Your task to perform on an android device: turn on notifications settings in the gmail app Image 0: 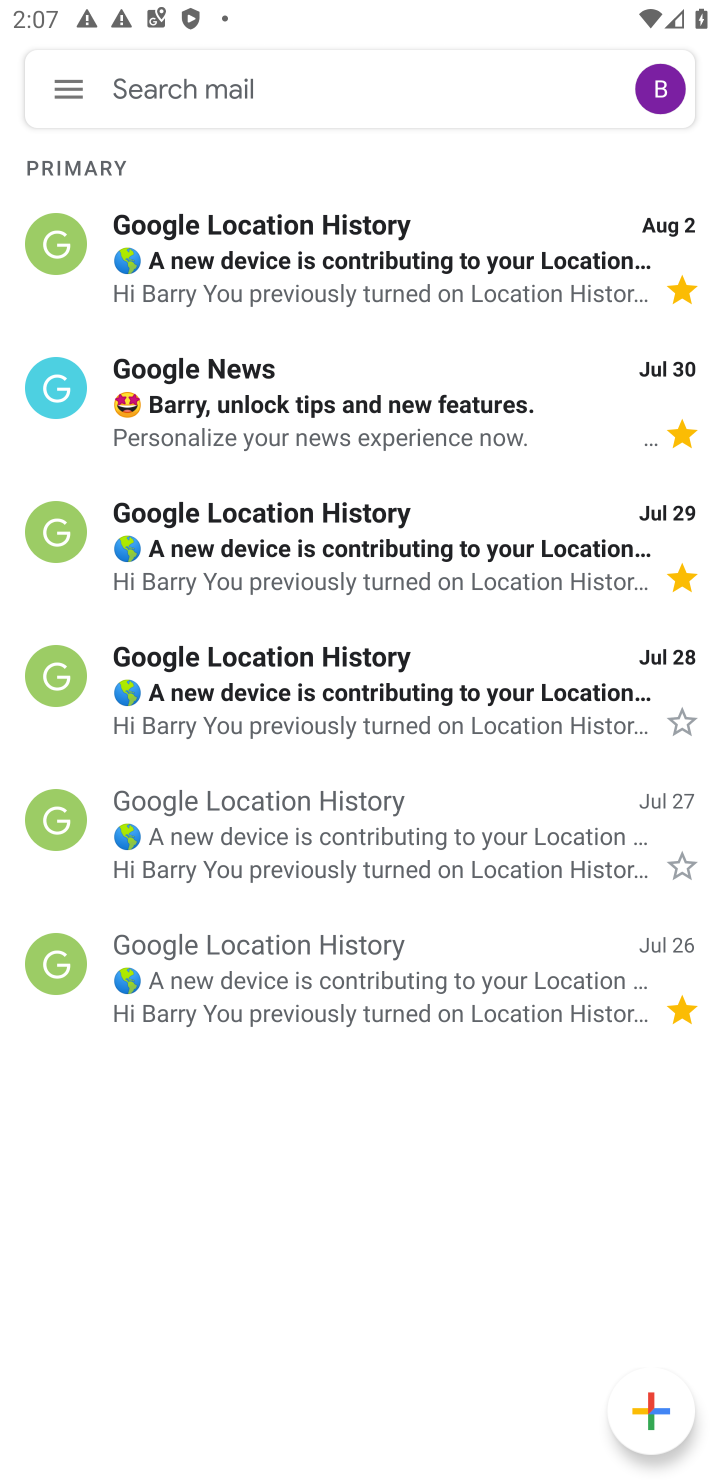
Step 0: press home button
Your task to perform on an android device: turn on notifications settings in the gmail app Image 1: 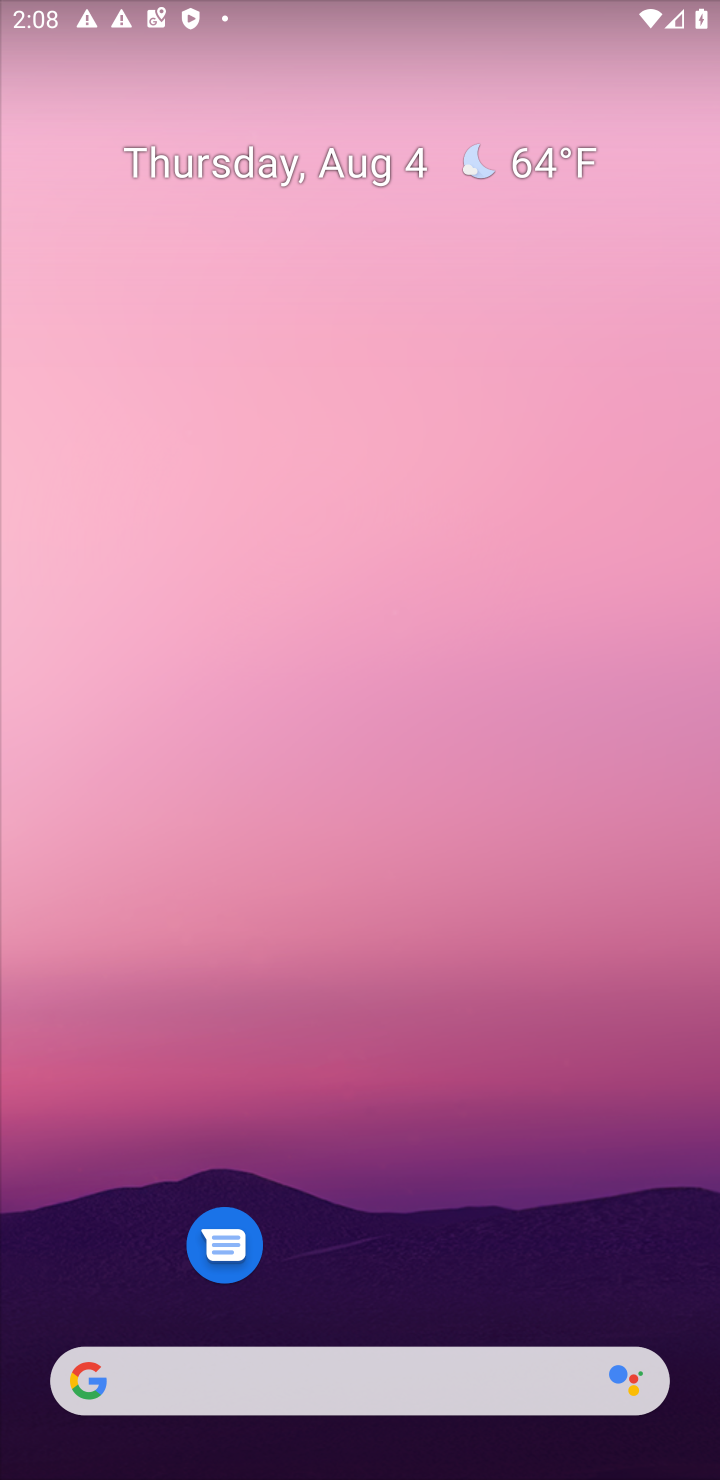
Step 1: drag from (302, 1288) to (270, 301)
Your task to perform on an android device: turn on notifications settings in the gmail app Image 2: 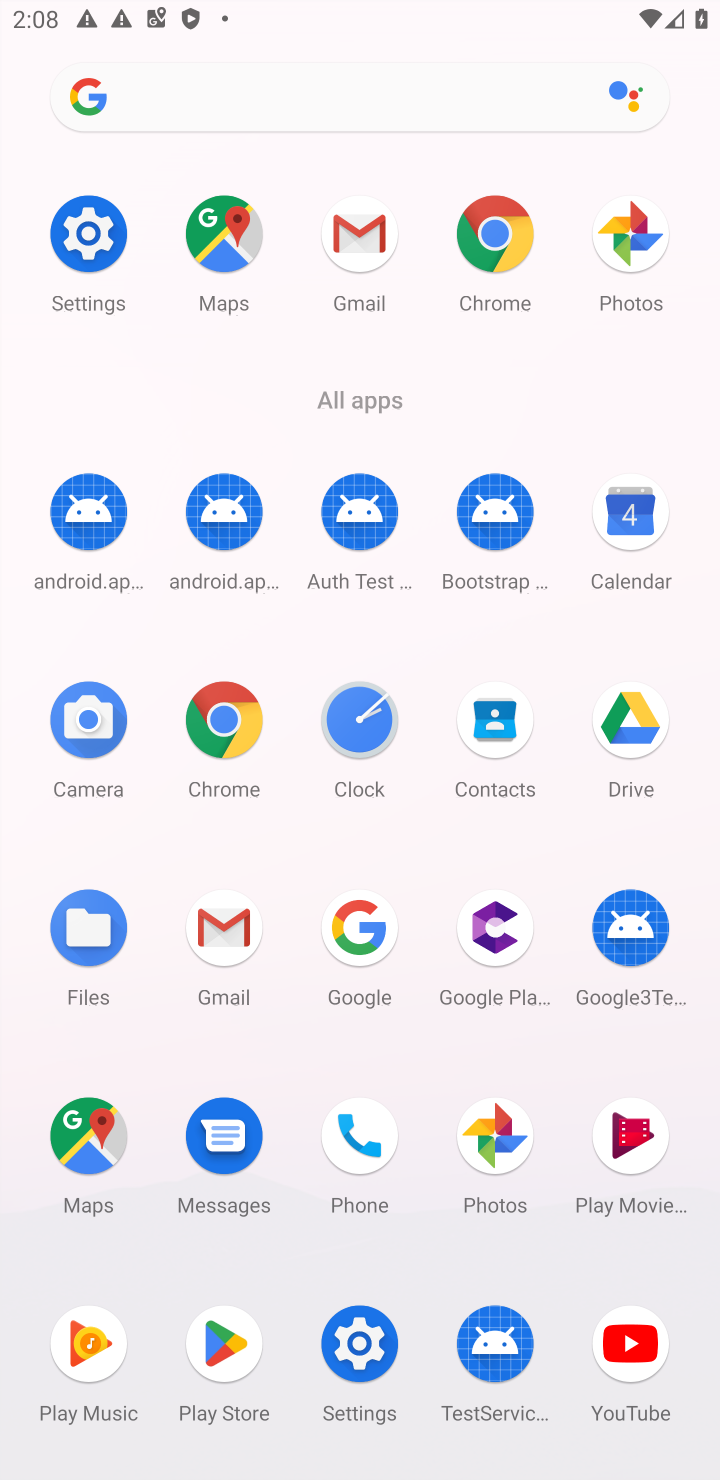
Step 2: click (369, 220)
Your task to perform on an android device: turn on notifications settings in the gmail app Image 3: 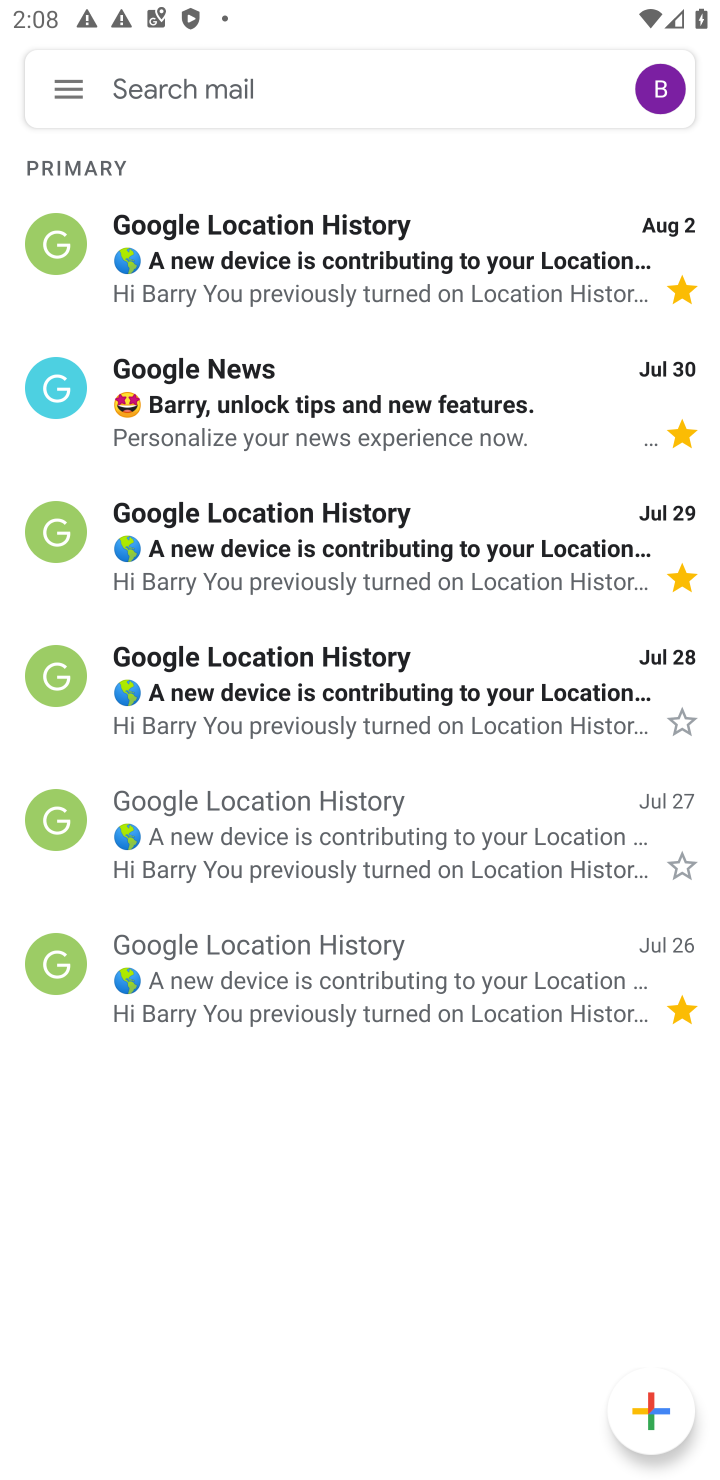
Step 3: click (85, 82)
Your task to perform on an android device: turn on notifications settings in the gmail app Image 4: 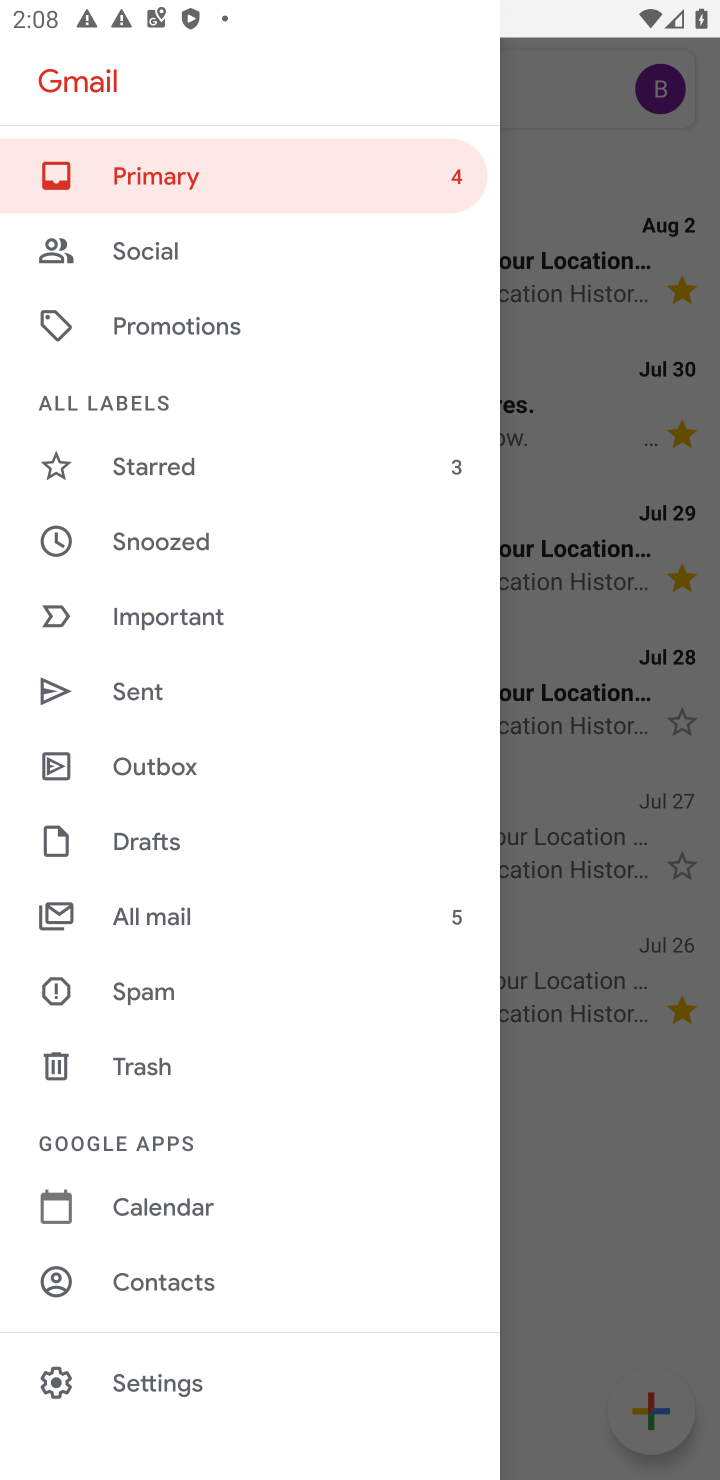
Step 4: click (128, 1377)
Your task to perform on an android device: turn on notifications settings in the gmail app Image 5: 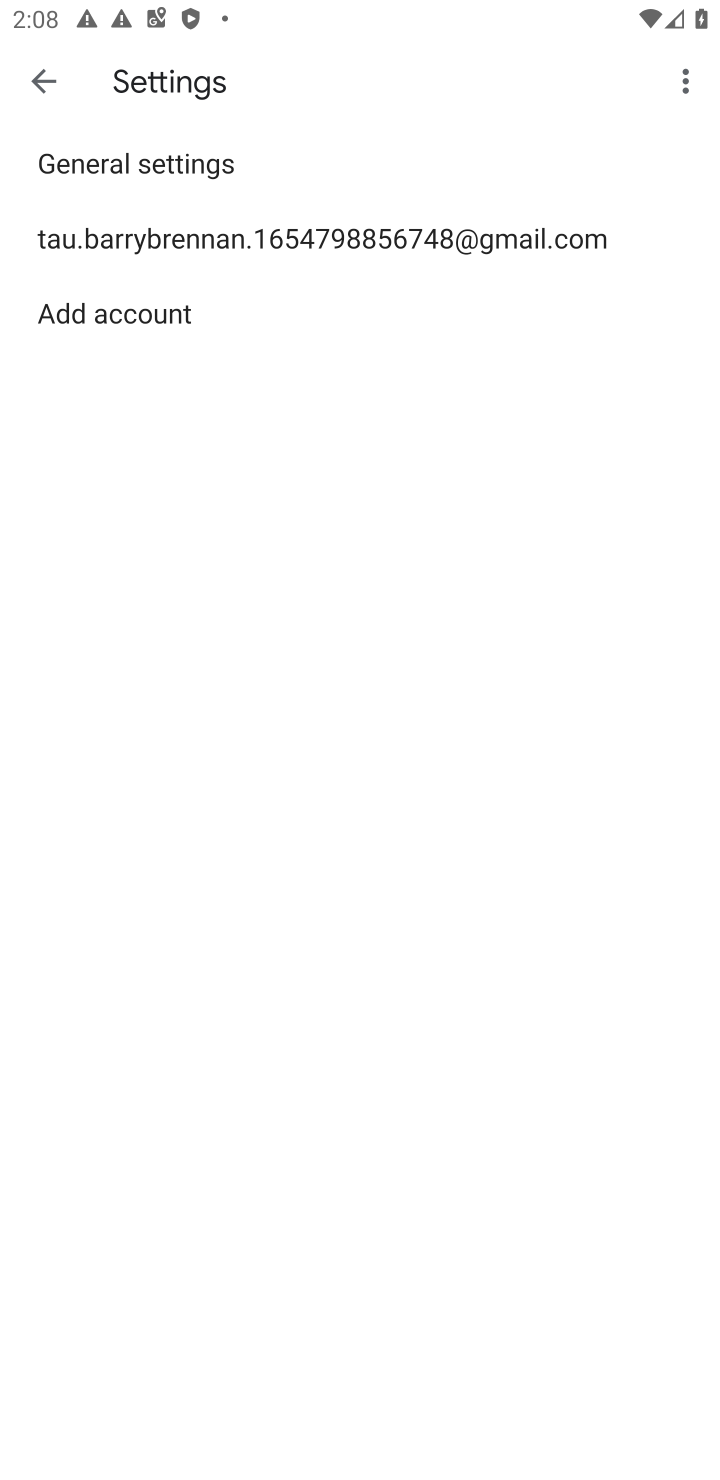
Step 5: click (226, 257)
Your task to perform on an android device: turn on notifications settings in the gmail app Image 6: 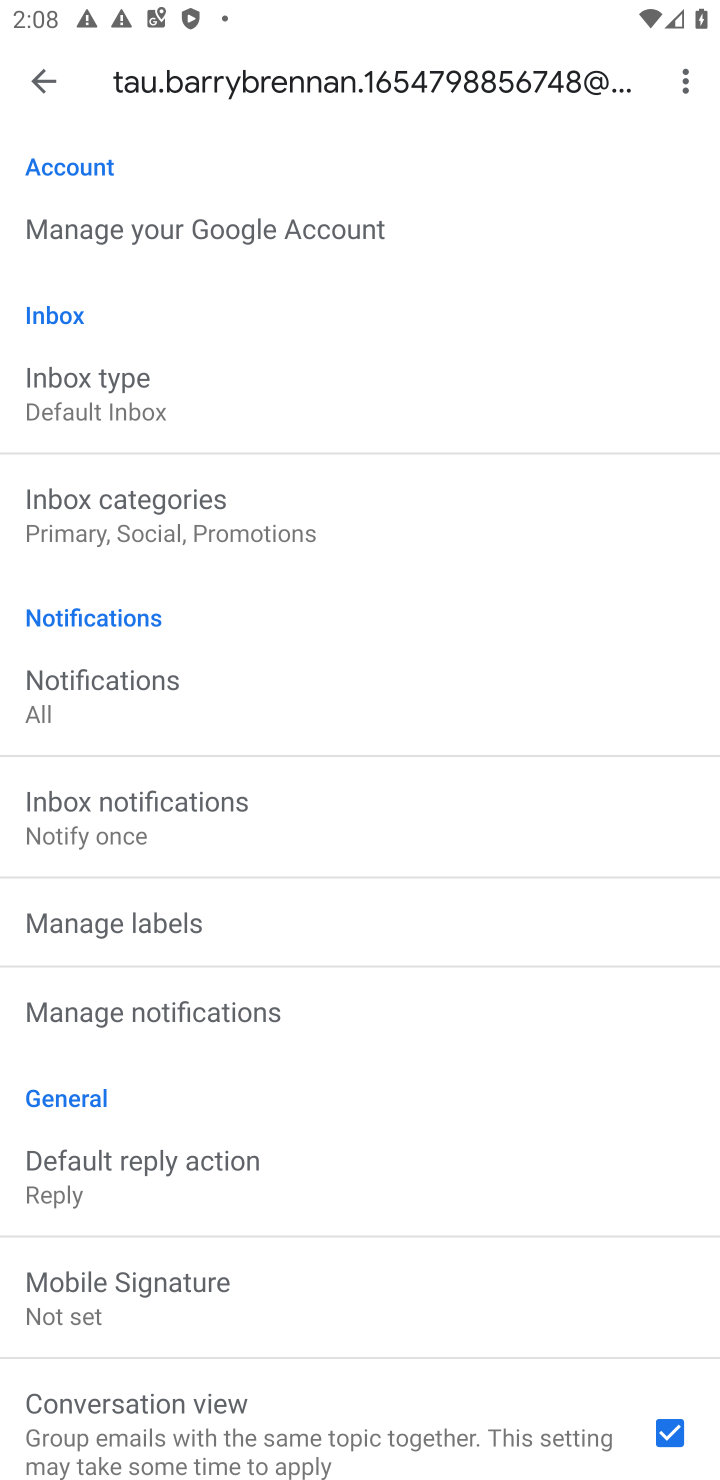
Step 6: click (263, 692)
Your task to perform on an android device: turn on notifications settings in the gmail app Image 7: 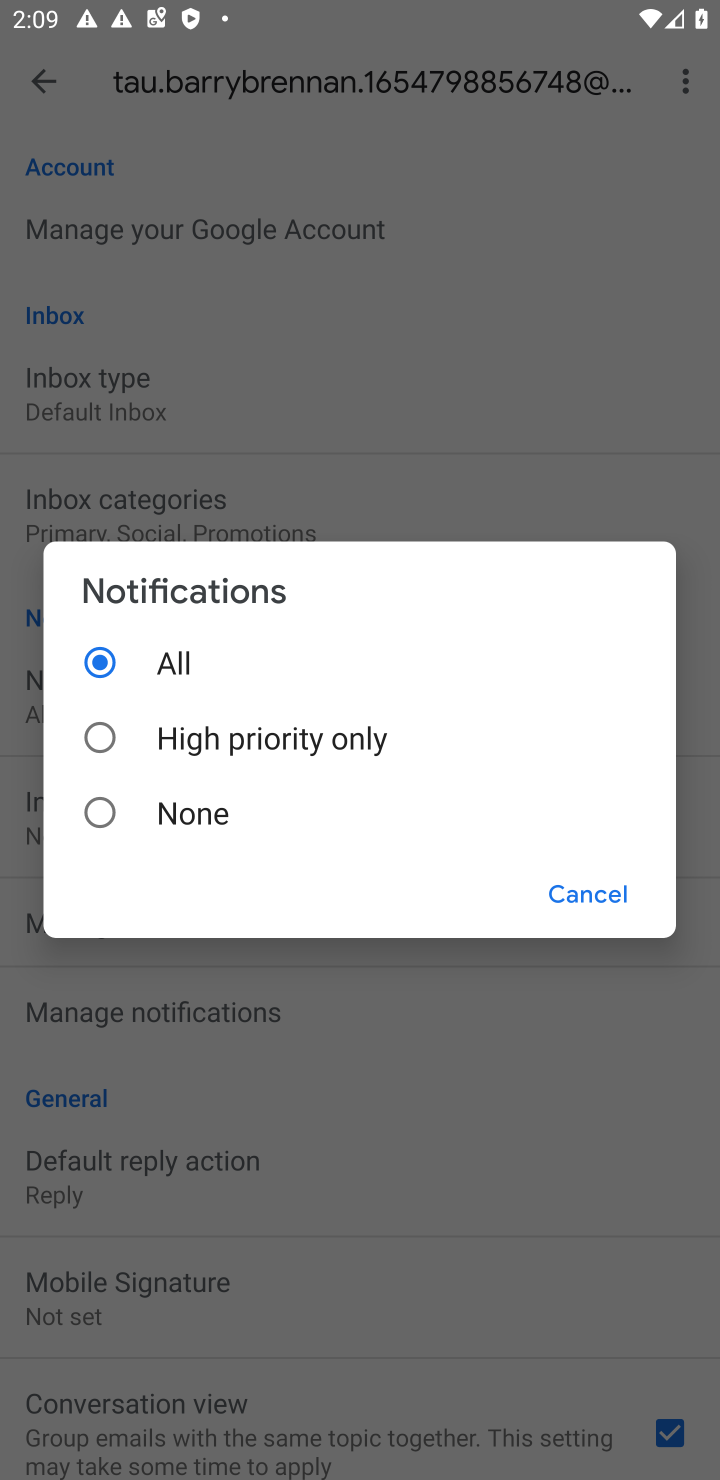
Step 7: task complete